Your task to perform on an android device: Open my contact list Image 0: 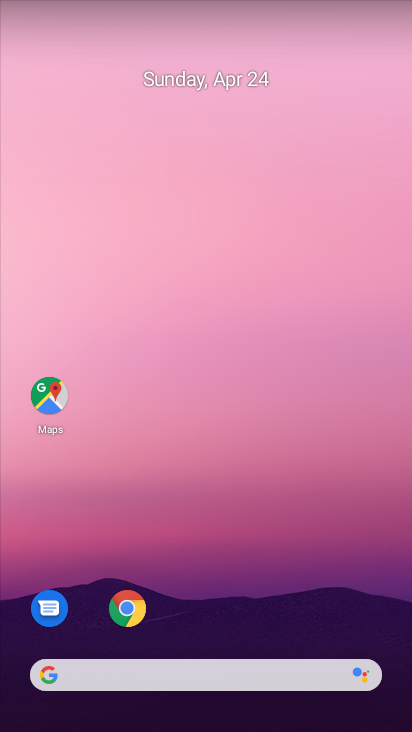
Step 0: drag from (326, 604) to (364, 89)
Your task to perform on an android device: Open my contact list Image 1: 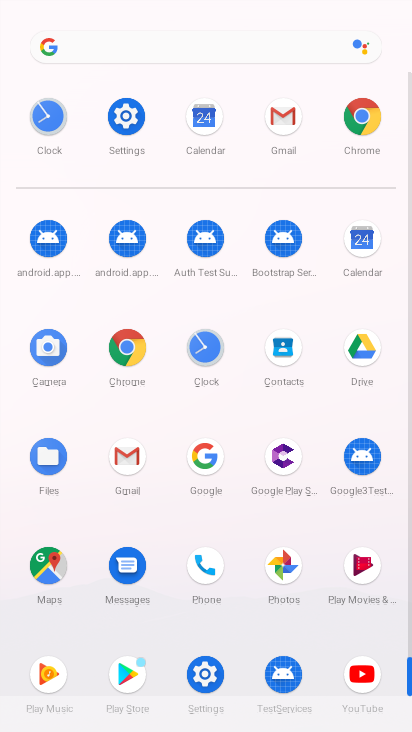
Step 1: click (286, 355)
Your task to perform on an android device: Open my contact list Image 2: 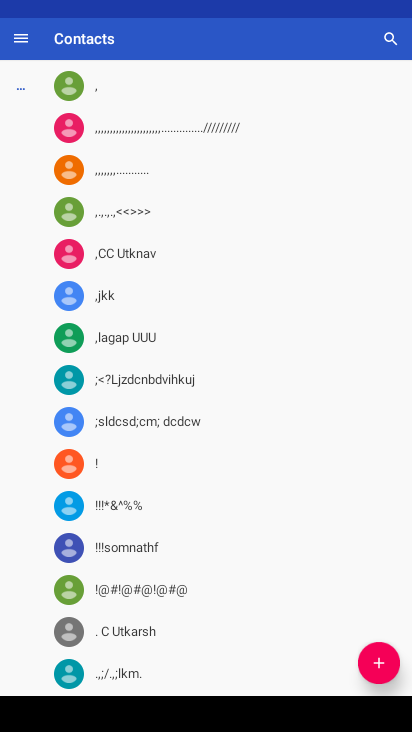
Step 2: task complete